Your task to perform on an android device: What's the news this weekend? Image 0: 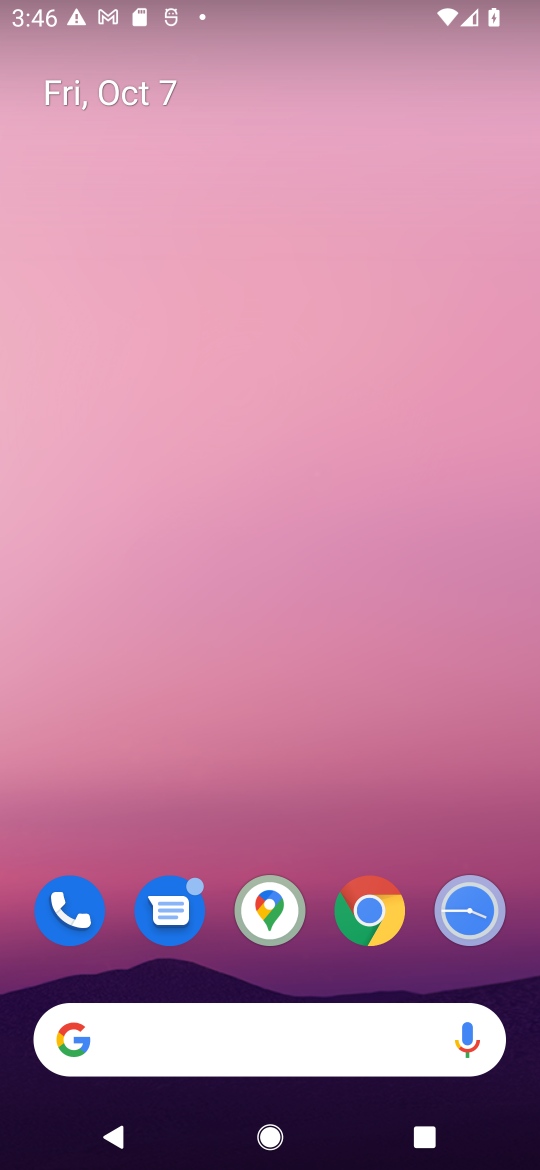
Step 0: click (202, 1041)
Your task to perform on an android device: What's the news this weekend? Image 1: 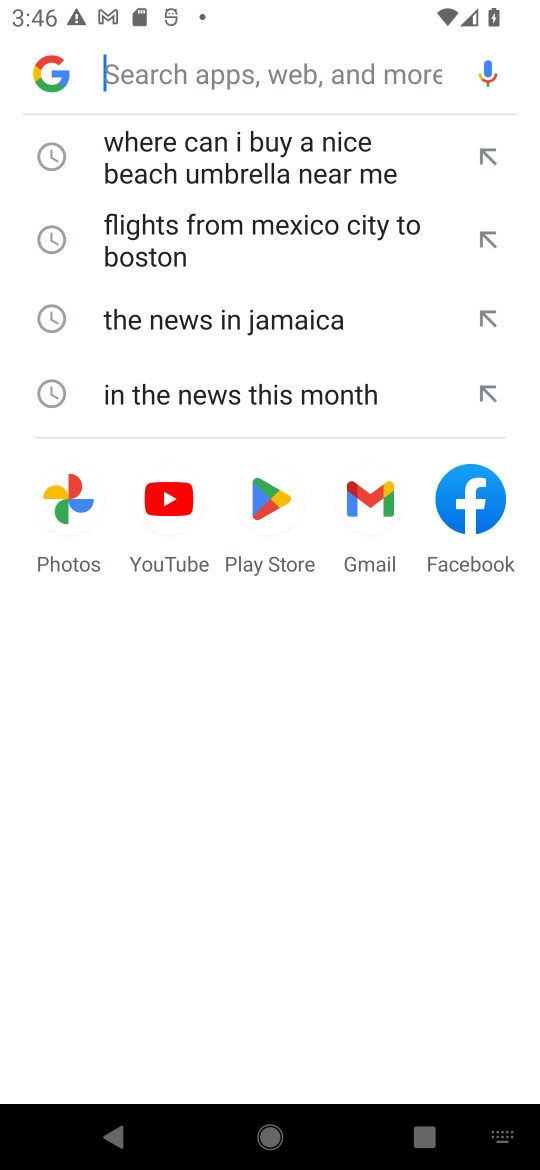
Step 1: type "the news this weekend"
Your task to perform on an android device: What's the news this weekend? Image 2: 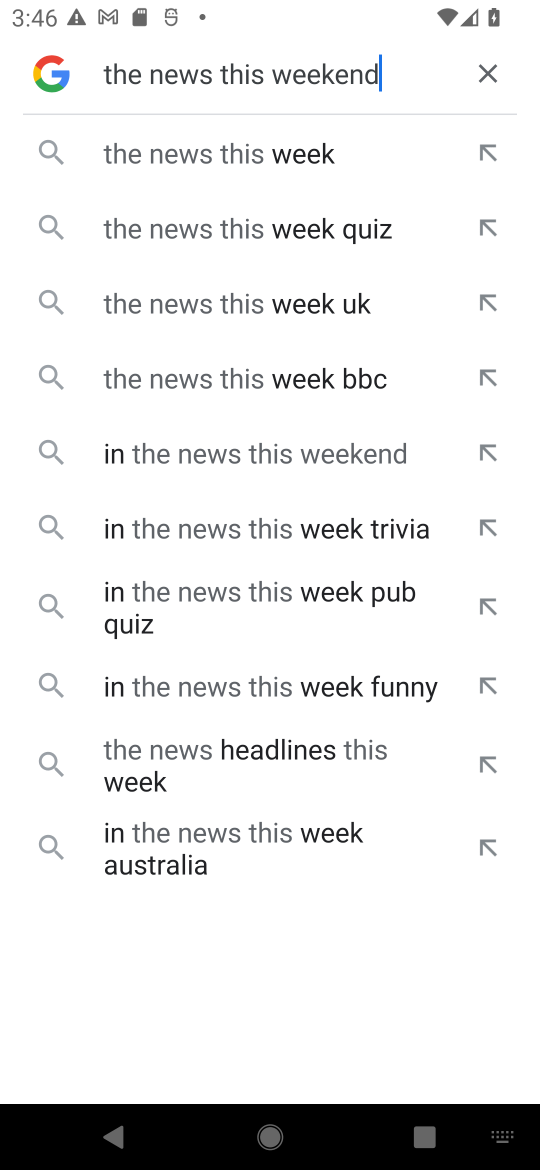
Step 2: click (290, 460)
Your task to perform on an android device: What's the news this weekend? Image 3: 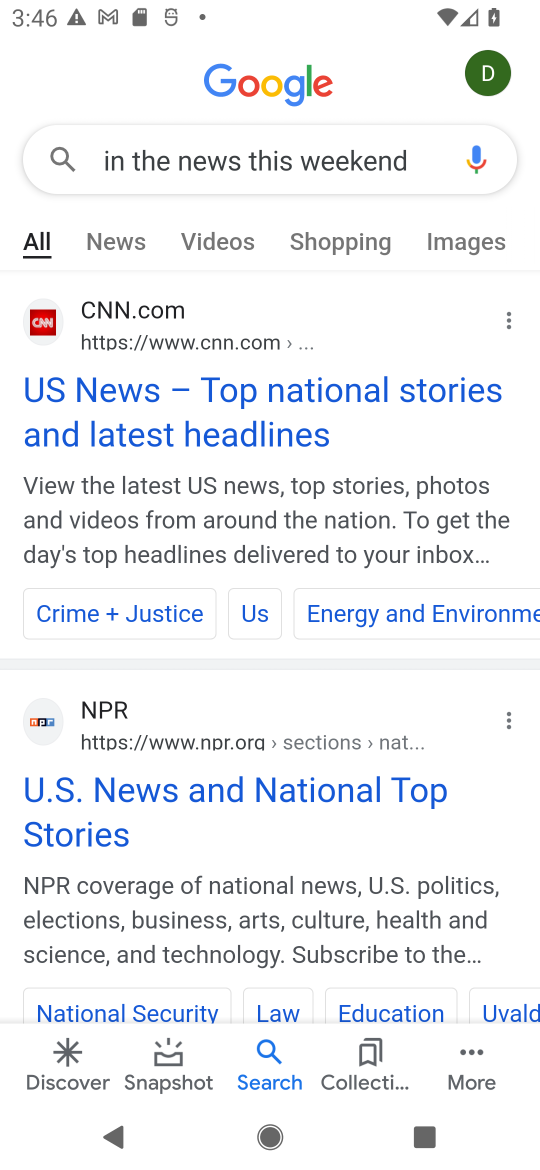
Step 3: click (107, 239)
Your task to perform on an android device: What's the news this weekend? Image 4: 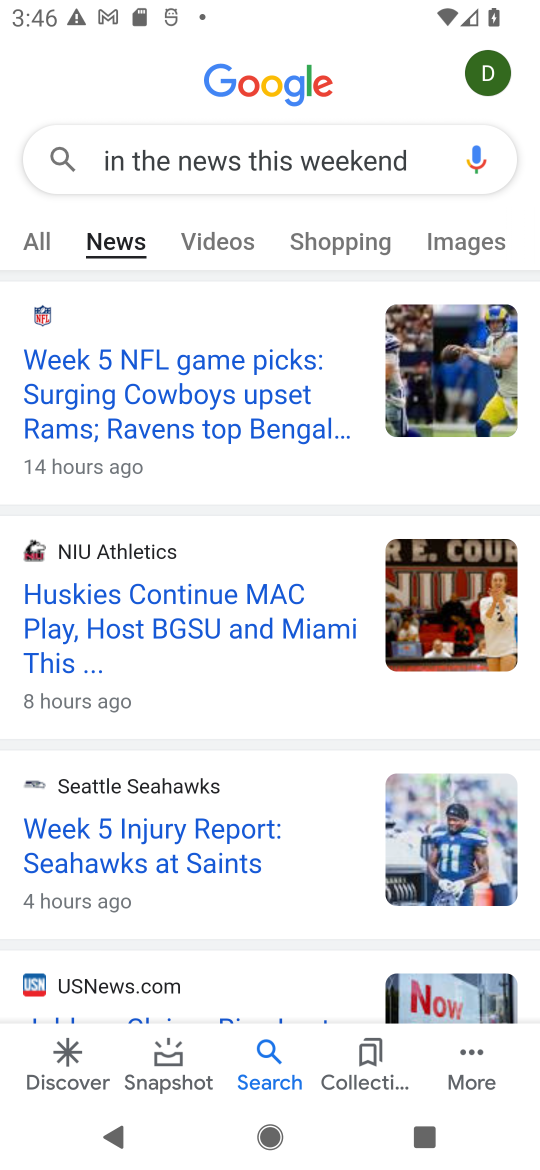
Step 4: task complete